Your task to perform on an android device: empty trash in the gmail app Image 0: 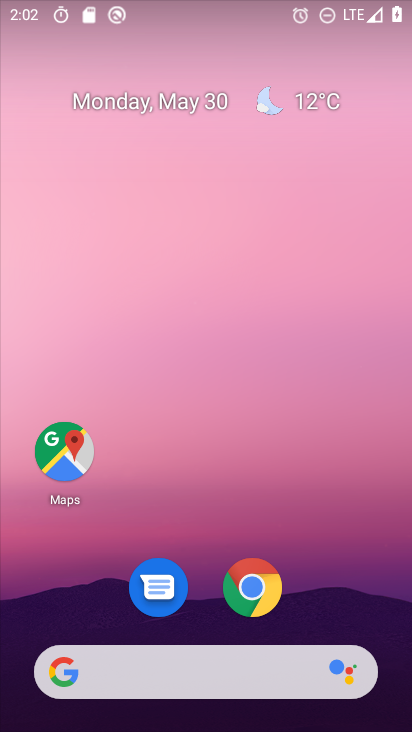
Step 0: drag from (366, 602) to (252, 5)
Your task to perform on an android device: empty trash in the gmail app Image 1: 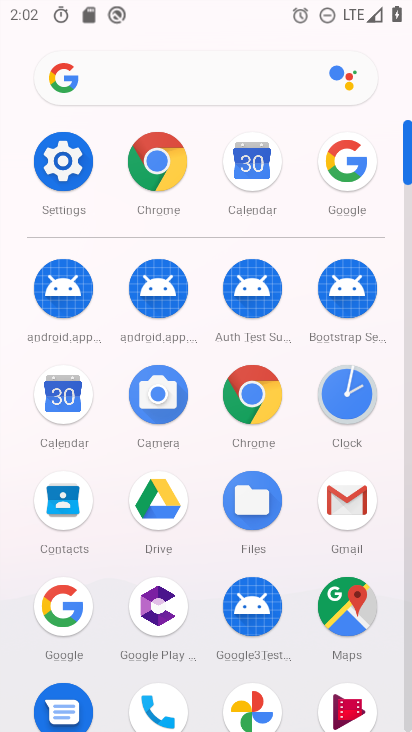
Step 1: drag from (311, 480) to (291, 117)
Your task to perform on an android device: empty trash in the gmail app Image 2: 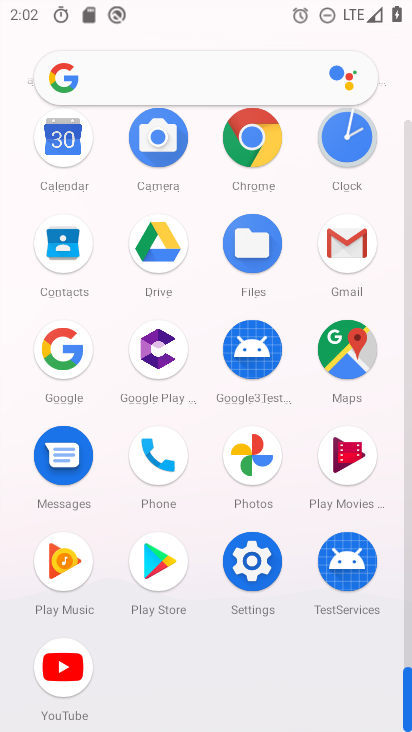
Step 2: click (357, 236)
Your task to perform on an android device: empty trash in the gmail app Image 3: 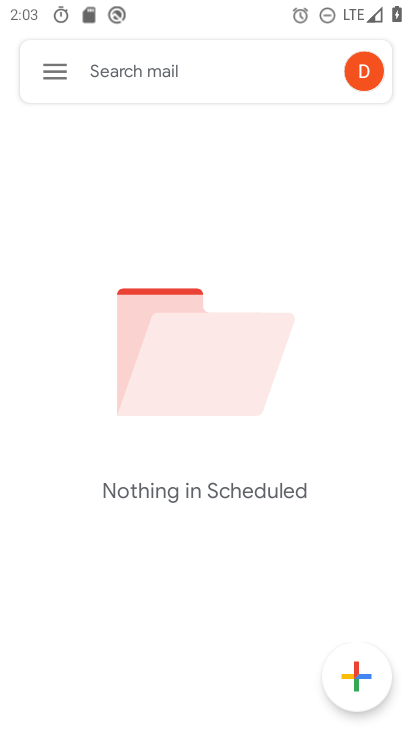
Step 3: click (49, 77)
Your task to perform on an android device: empty trash in the gmail app Image 4: 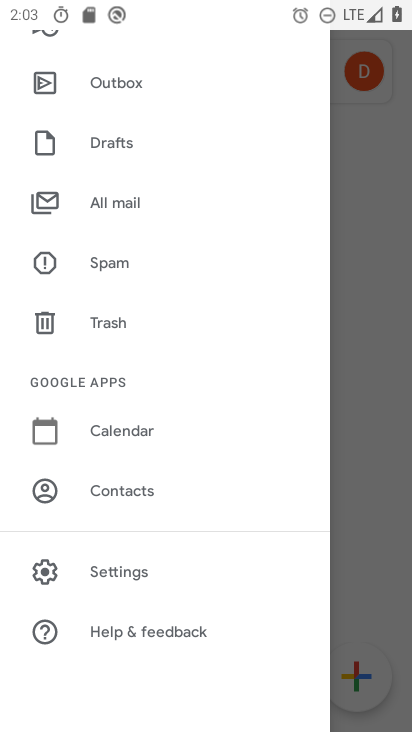
Step 4: click (95, 333)
Your task to perform on an android device: empty trash in the gmail app Image 5: 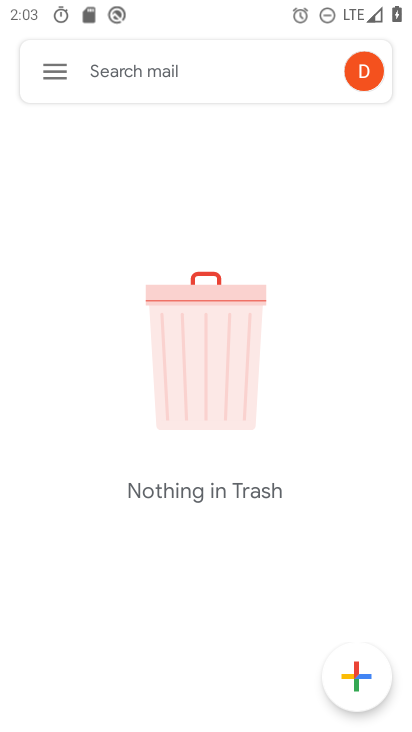
Step 5: task complete